Your task to perform on an android device: Open Google Chrome and click the shortcut for Amazon.com Image 0: 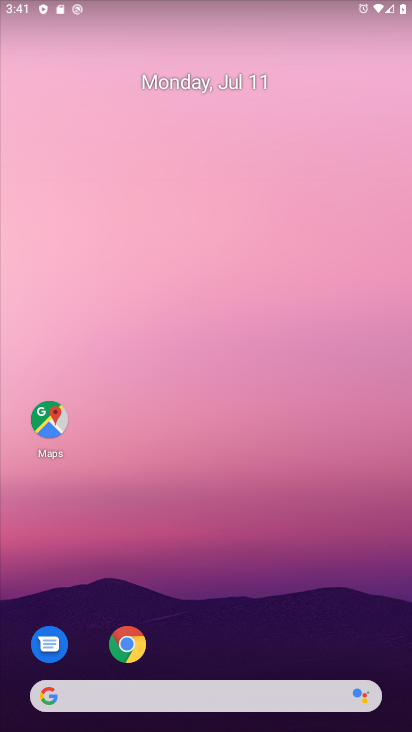
Step 0: drag from (216, 697) to (215, 65)
Your task to perform on an android device: Open Google Chrome and click the shortcut for Amazon.com Image 1: 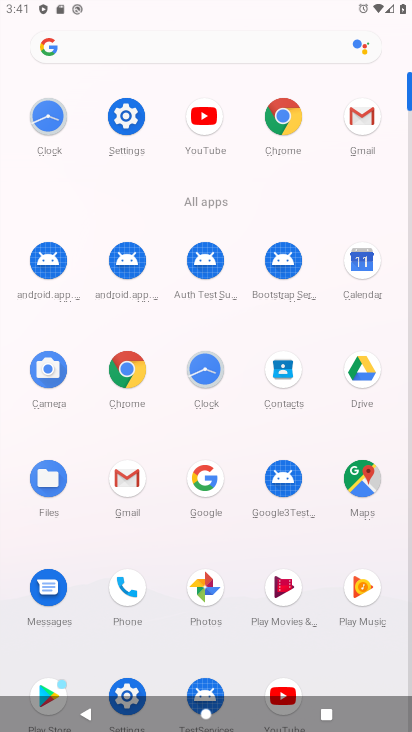
Step 1: click (131, 363)
Your task to perform on an android device: Open Google Chrome and click the shortcut for Amazon.com Image 2: 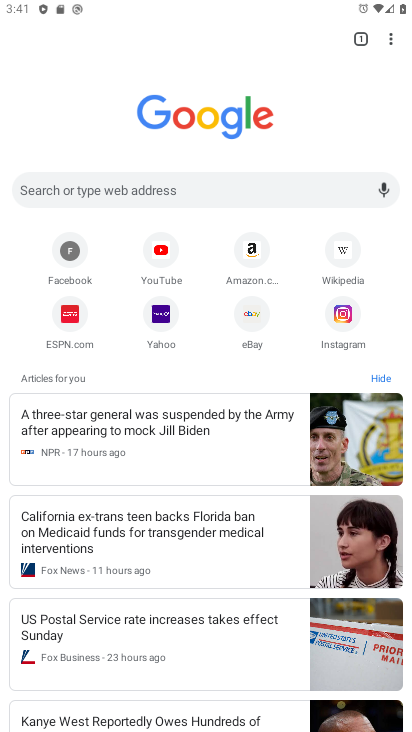
Step 2: drag from (391, 37) to (383, 78)
Your task to perform on an android device: Open Google Chrome and click the shortcut for Amazon.com Image 3: 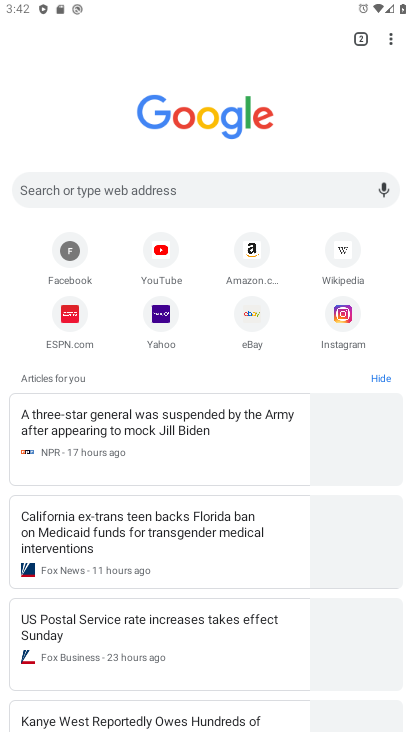
Step 3: click (171, 78)
Your task to perform on an android device: Open Google Chrome and click the shortcut for Amazon.com Image 4: 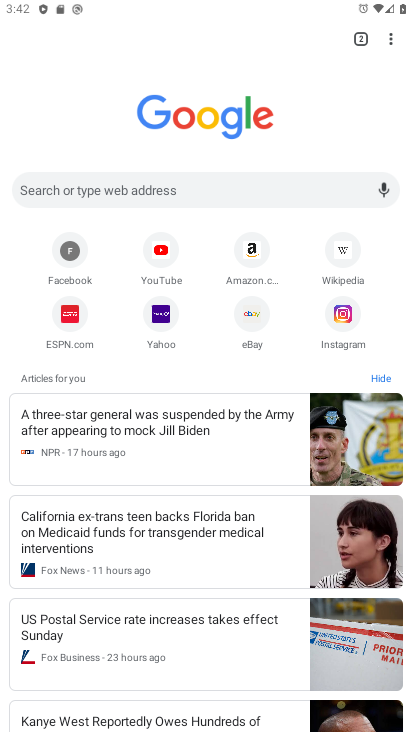
Step 4: click (241, 251)
Your task to perform on an android device: Open Google Chrome and click the shortcut for Amazon.com Image 5: 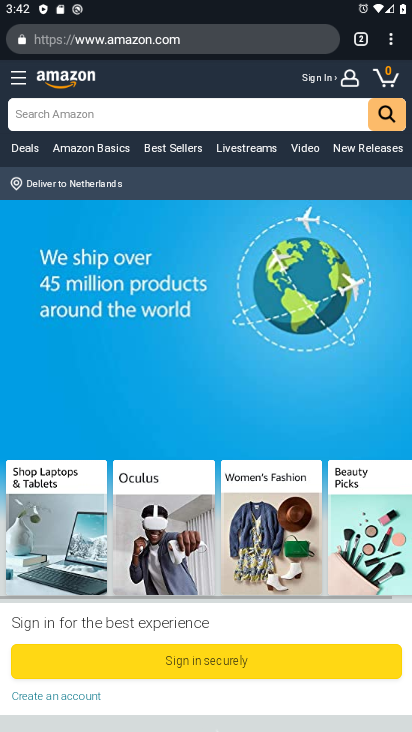
Step 5: drag from (390, 38) to (259, 372)
Your task to perform on an android device: Open Google Chrome and click the shortcut for Amazon.com Image 6: 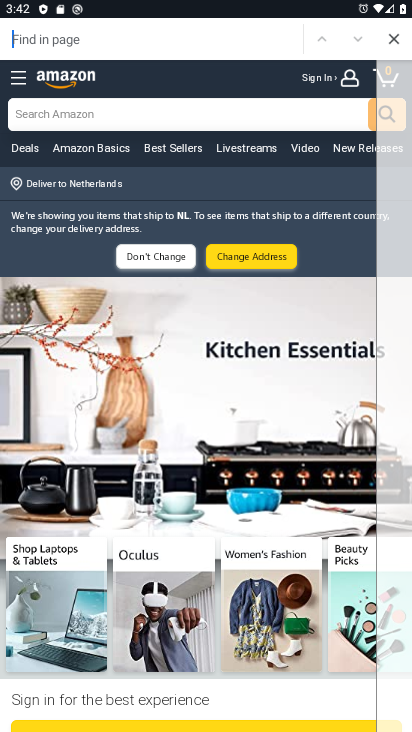
Step 6: click (257, 399)
Your task to perform on an android device: Open Google Chrome and click the shortcut for Amazon.com Image 7: 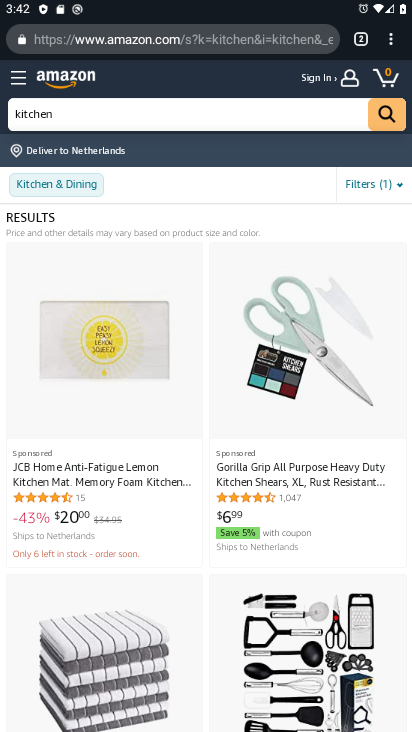
Step 7: task complete